Your task to perform on an android device: set an alarm Image 0: 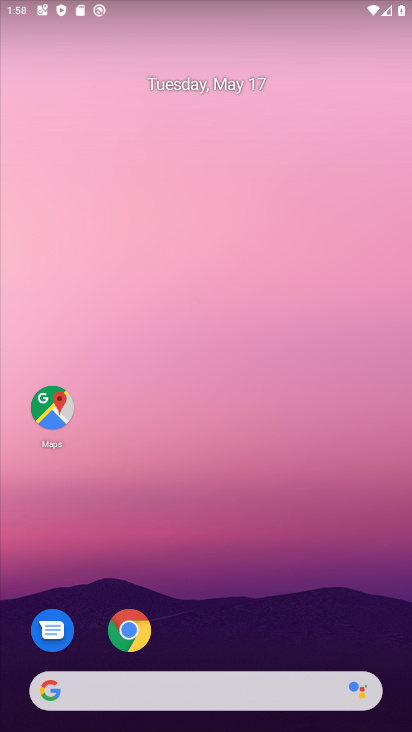
Step 0: drag from (312, 621) to (301, 154)
Your task to perform on an android device: set an alarm Image 1: 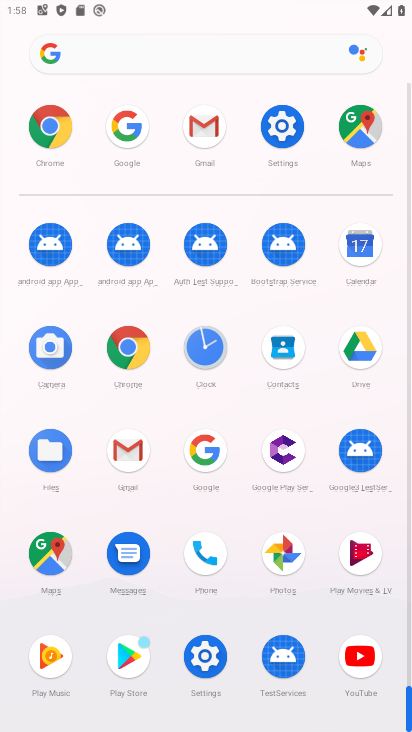
Step 1: click (207, 345)
Your task to perform on an android device: set an alarm Image 2: 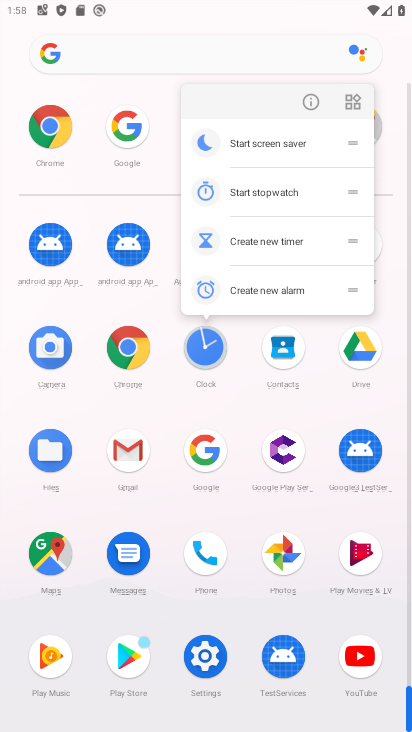
Step 2: click (208, 354)
Your task to perform on an android device: set an alarm Image 3: 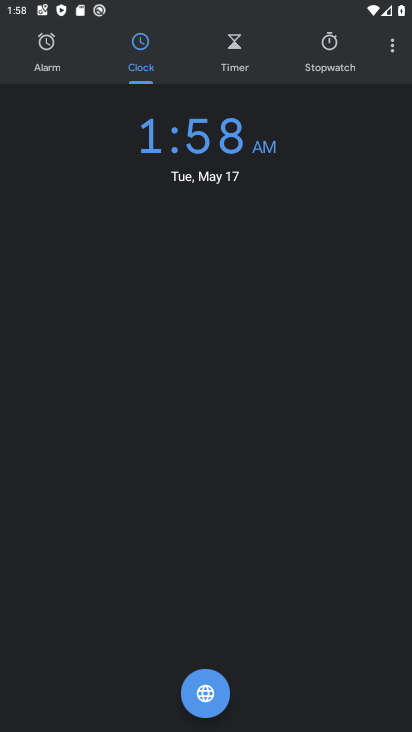
Step 3: click (52, 51)
Your task to perform on an android device: set an alarm Image 4: 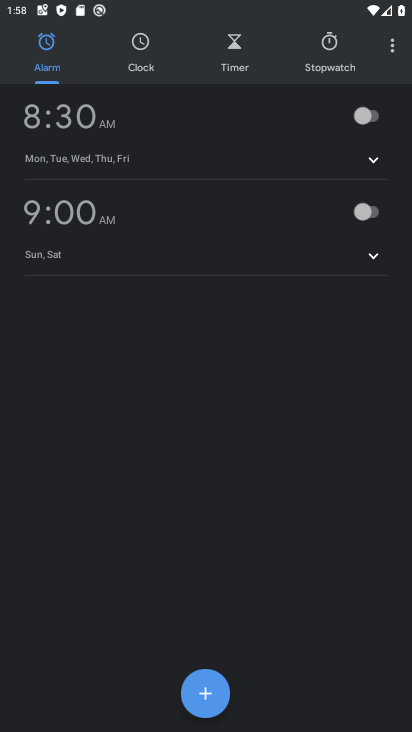
Step 4: click (203, 707)
Your task to perform on an android device: set an alarm Image 5: 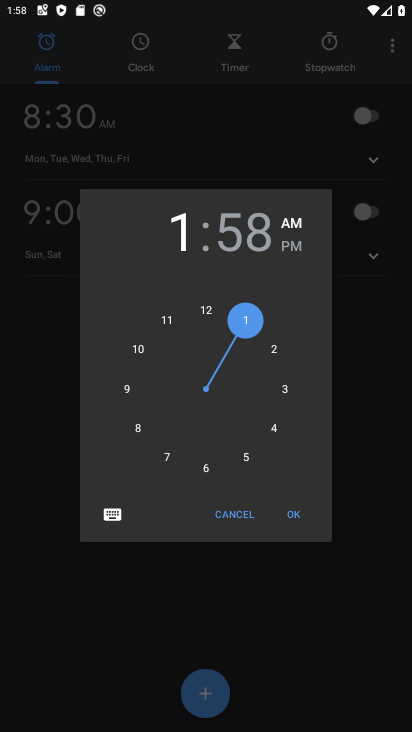
Step 5: click (299, 508)
Your task to perform on an android device: set an alarm Image 6: 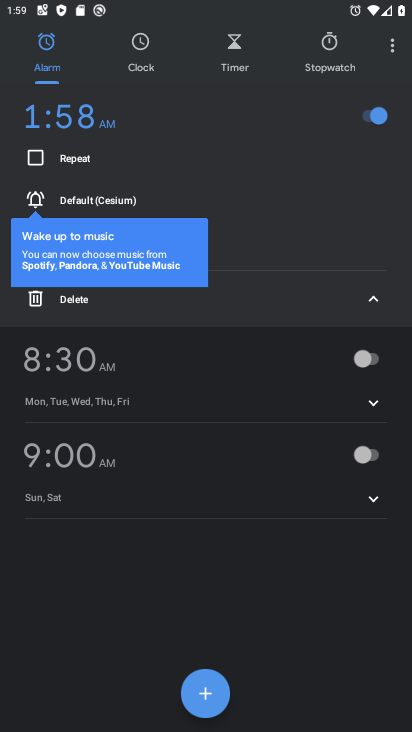
Step 6: task complete